Your task to perform on an android device: Show me popular videos on Youtube Image 0: 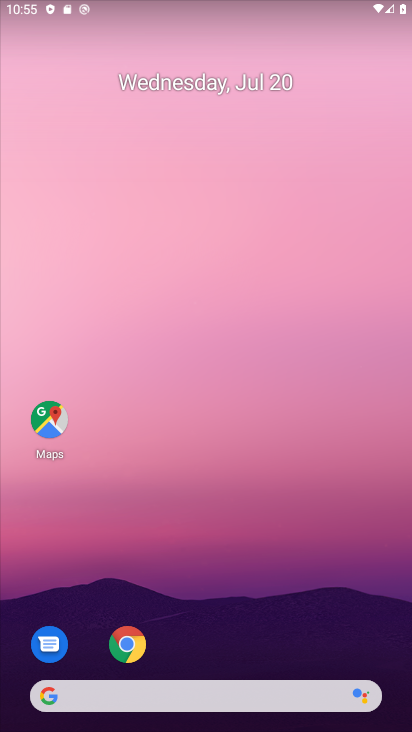
Step 0: drag from (225, 678) to (333, 7)
Your task to perform on an android device: Show me popular videos on Youtube Image 1: 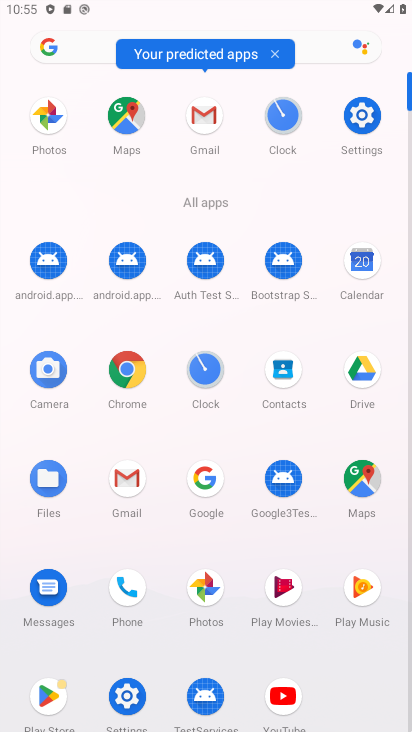
Step 1: click (281, 706)
Your task to perform on an android device: Show me popular videos on Youtube Image 2: 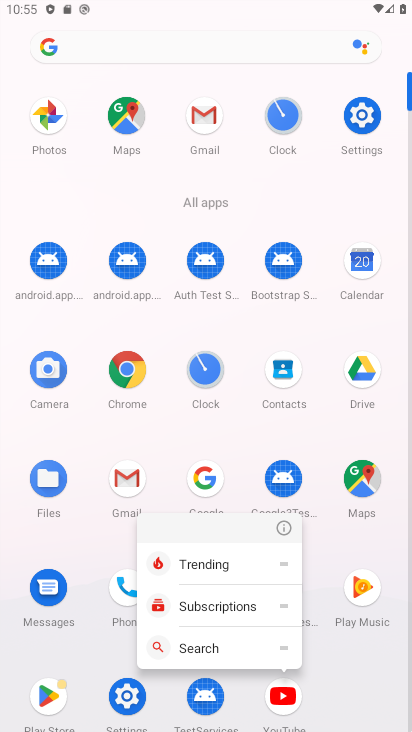
Step 2: click (268, 700)
Your task to perform on an android device: Show me popular videos on Youtube Image 3: 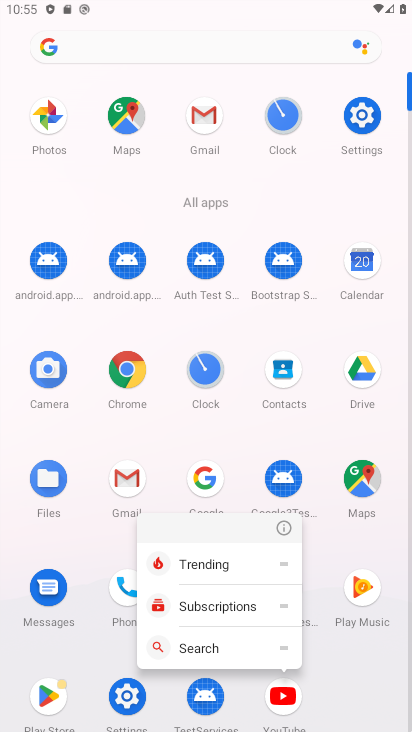
Step 3: click (289, 704)
Your task to perform on an android device: Show me popular videos on Youtube Image 4: 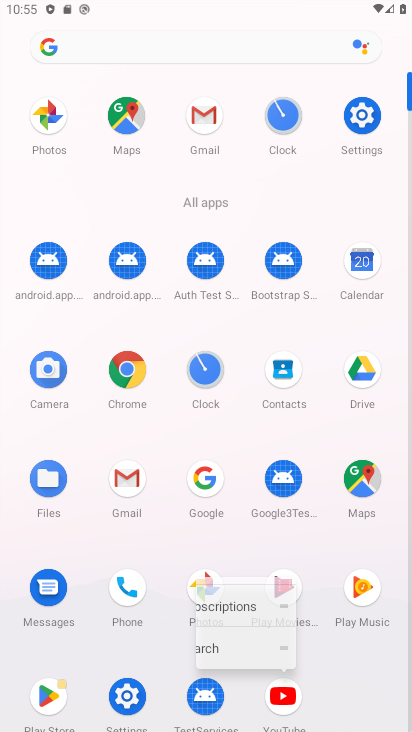
Step 4: click (289, 704)
Your task to perform on an android device: Show me popular videos on Youtube Image 5: 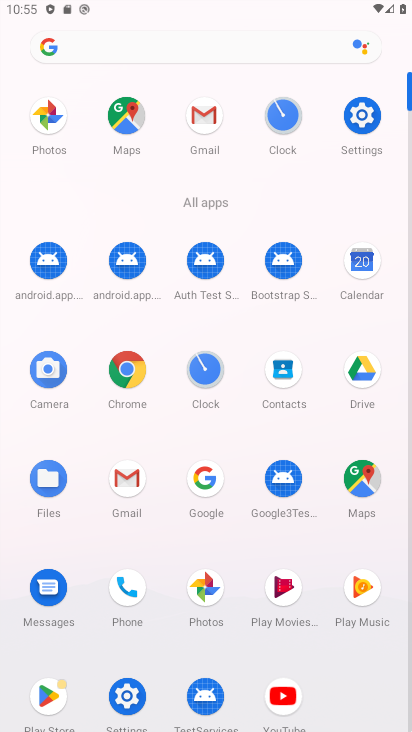
Step 5: click (289, 704)
Your task to perform on an android device: Show me popular videos on Youtube Image 6: 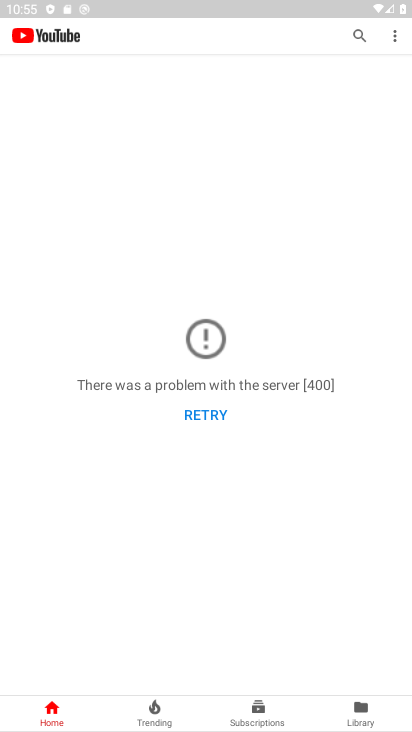
Step 6: click (57, 724)
Your task to perform on an android device: Show me popular videos on Youtube Image 7: 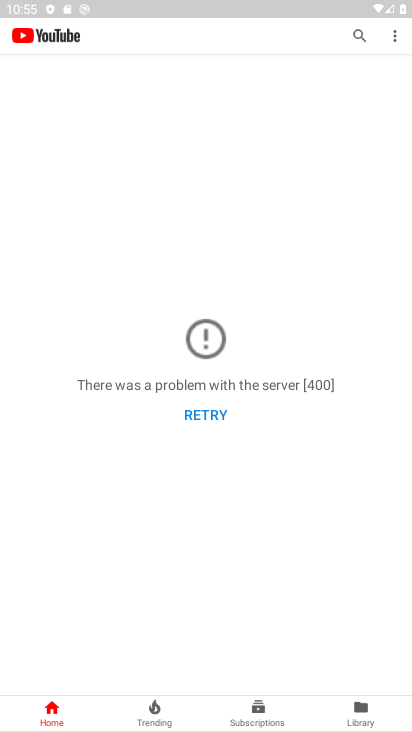
Step 7: click (206, 413)
Your task to perform on an android device: Show me popular videos on Youtube Image 8: 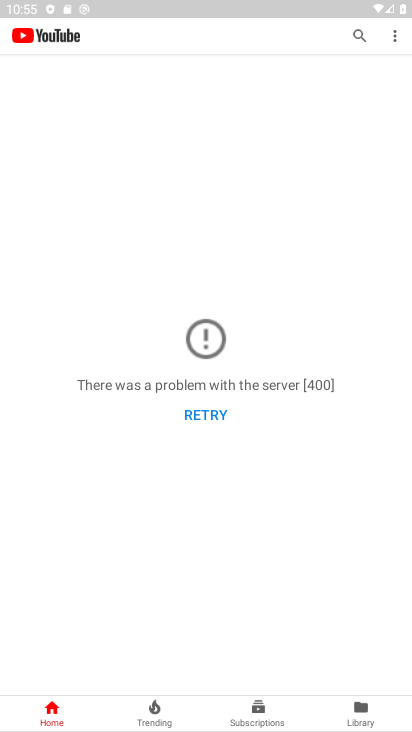
Step 8: task complete